Your task to perform on an android device: Go to Reddit.com Image 0: 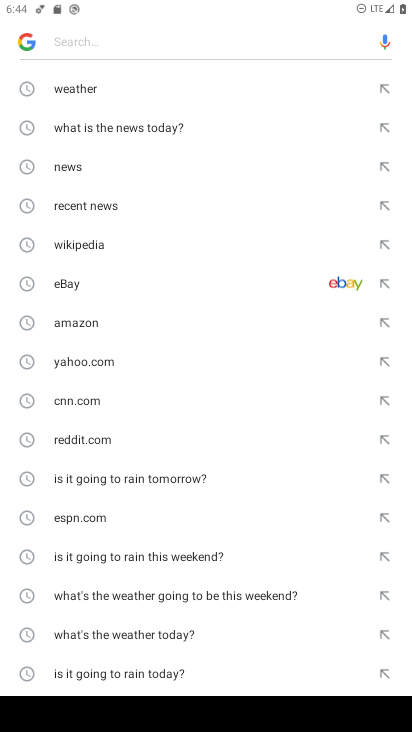
Step 0: press home button
Your task to perform on an android device: Go to Reddit.com Image 1: 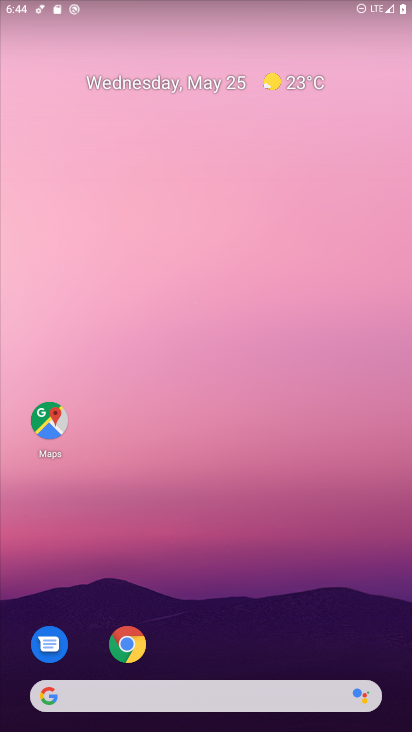
Step 1: drag from (392, 609) to (195, 96)
Your task to perform on an android device: Go to Reddit.com Image 2: 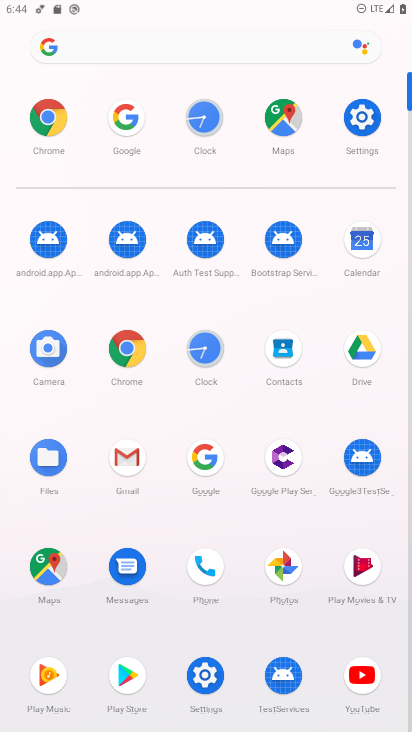
Step 2: click (214, 449)
Your task to perform on an android device: Go to Reddit.com Image 3: 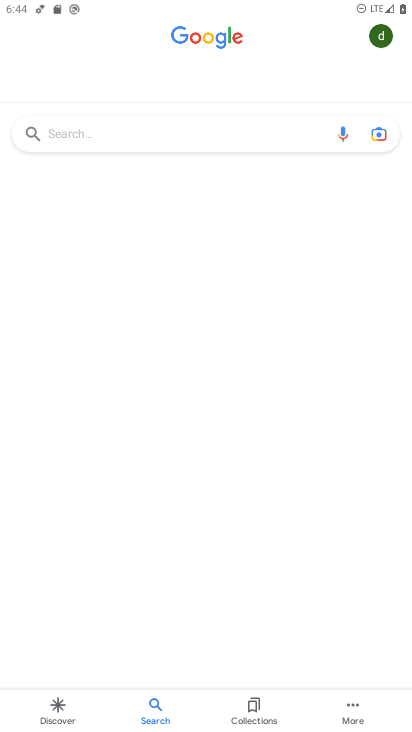
Step 3: click (87, 128)
Your task to perform on an android device: Go to Reddit.com Image 4: 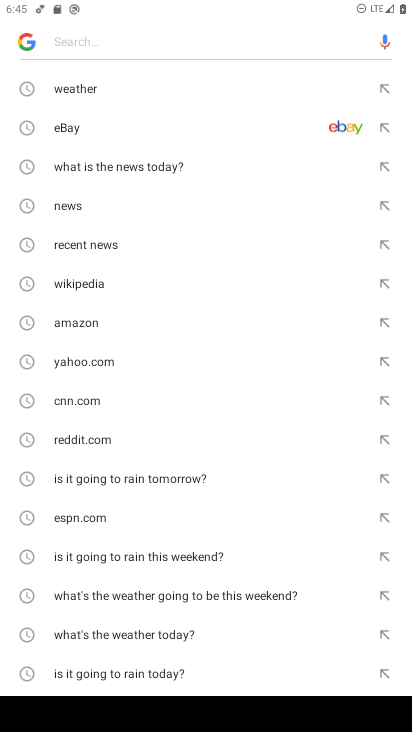
Step 4: click (106, 443)
Your task to perform on an android device: Go to Reddit.com Image 5: 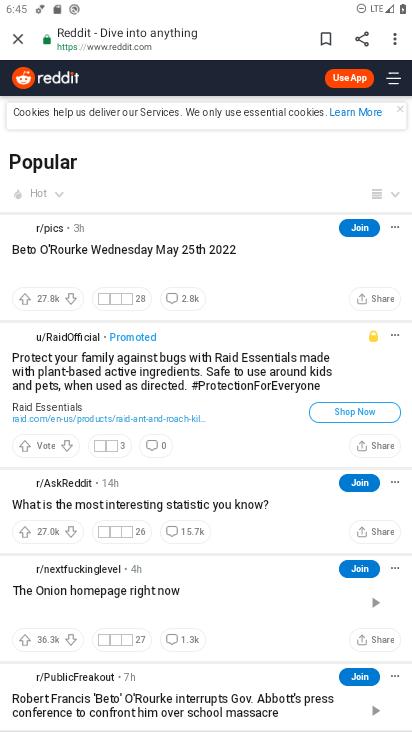
Step 5: task complete